Your task to perform on an android device: turn on translation in the chrome app Image 0: 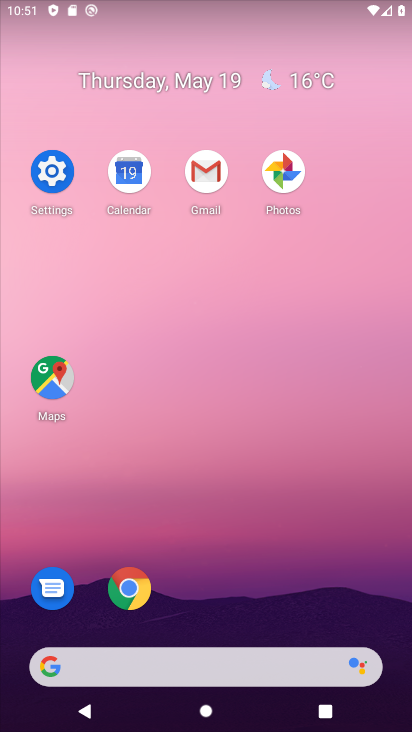
Step 0: click (145, 581)
Your task to perform on an android device: turn on translation in the chrome app Image 1: 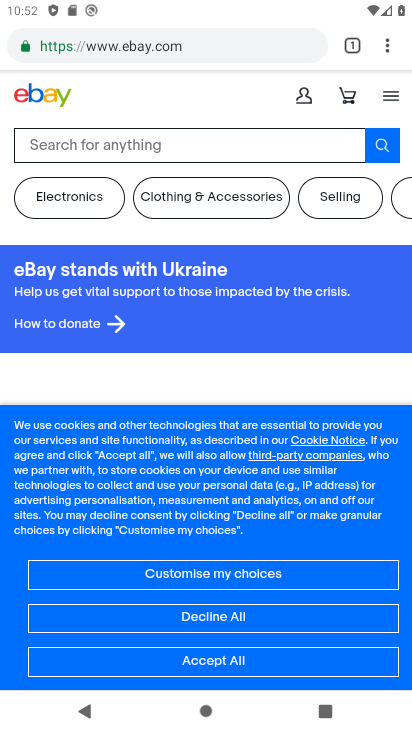
Step 1: click (392, 44)
Your task to perform on an android device: turn on translation in the chrome app Image 2: 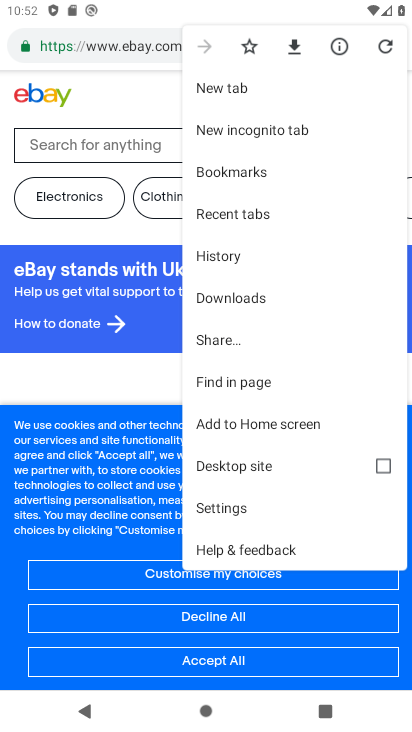
Step 2: click (245, 498)
Your task to perform on an android device: turn on translation in the chrome app Image 3: 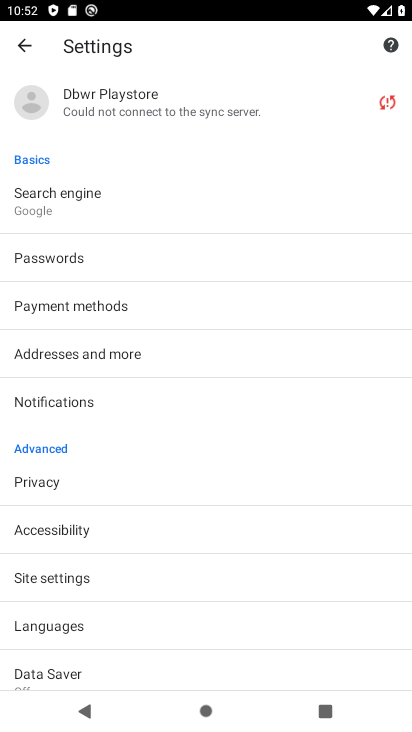
Step 3: drag from (159, 627) to (204, 231)
Your task to perform on an android device: turn on translation in the chrome app Image 4: 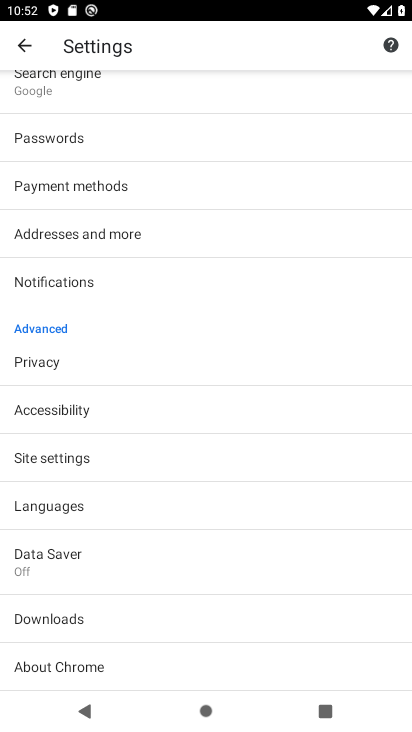
Step 4: click (67, 512)
Your task to perform on an android device: turn on translation in the chrome app Image 5: 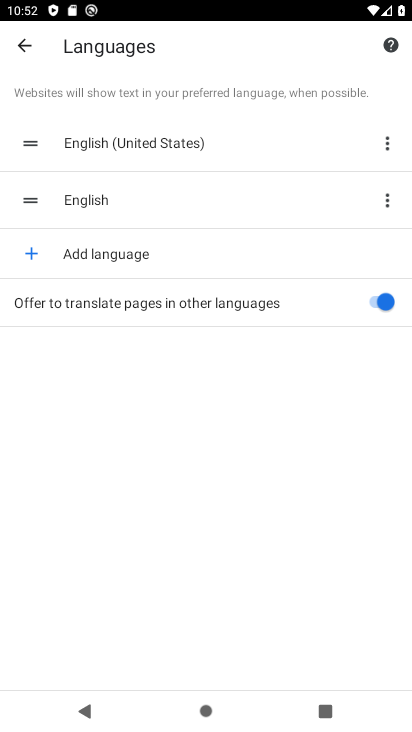
Step 5: task complete